Your task to perform on an android device: turn on the 24-hour format for clock Image 0: 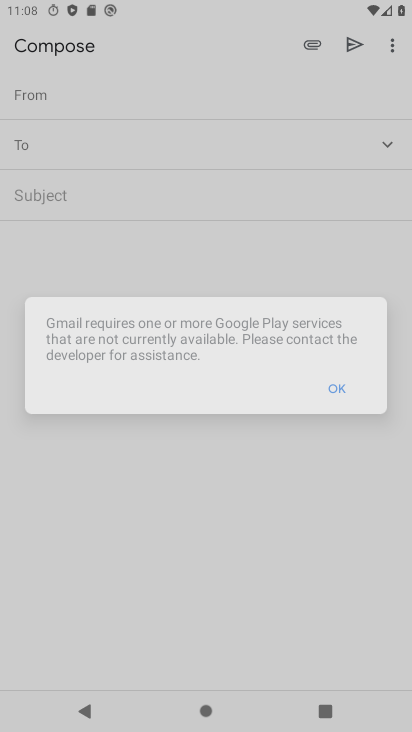
Step 0: drag from (330, 562) to (312, 206)
Your task to perform on an android device: turn on the 24-hour format for clock Image 1: 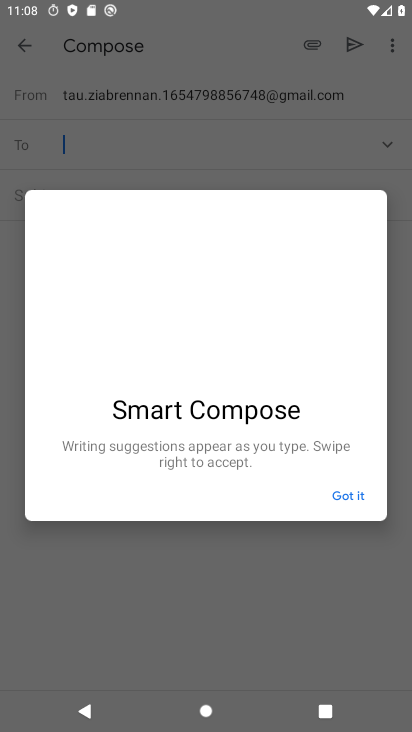
Step 1: press home button
Your task to perform on an android device: turn on the 24-hour format for clock Image 2: 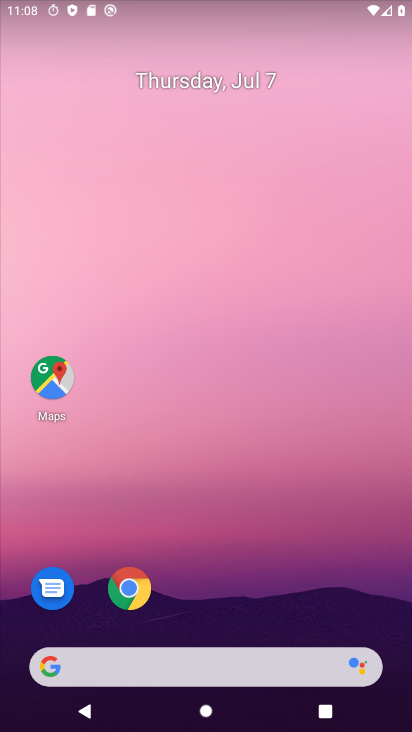
Step 2: drag from (310, 487) to (306, 112)
Your task to perform on an android device: turn on the 24-hour format for clock Image 3: 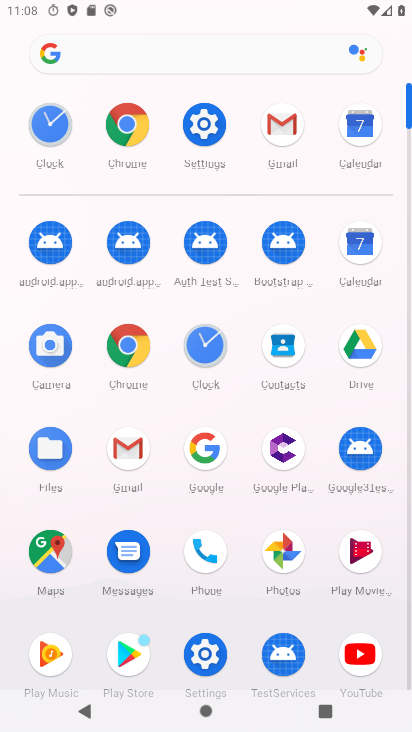
Step 3: click (202, 348)
Your task to perform on an android device: turn on the 24-hour format for clock Image 4: 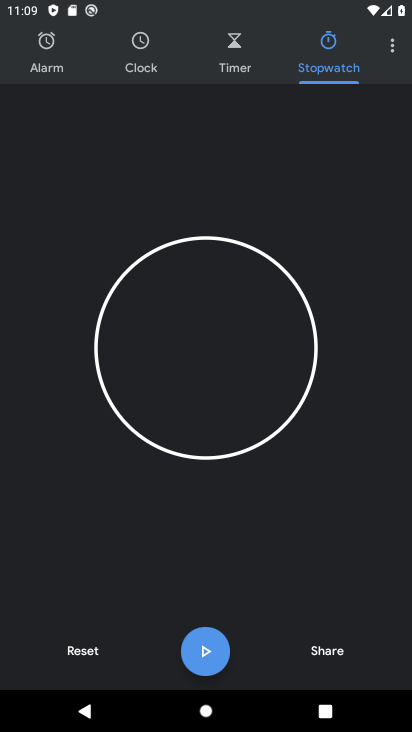
Step 4: click (398, 44)
Your task to perform on an android device: turn on the 24-hour format for clock Image 5: 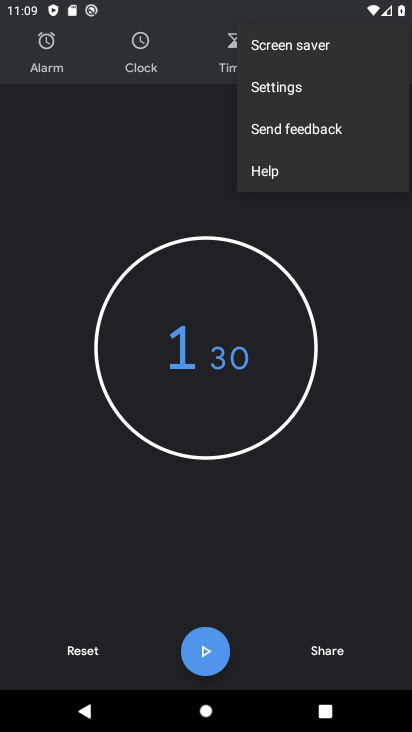
Step 5: click (285, 90)
Your task to perform on an android device: turn on the 24-hour format for clock Image 6: 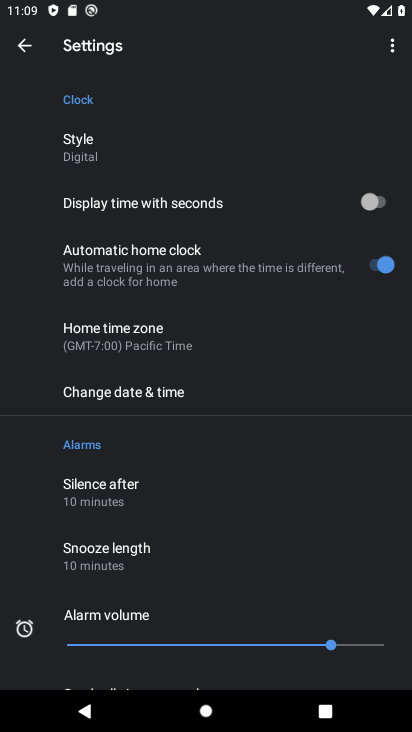
Step 6: click (173, 404)
Your task to perform on an android device: turn on the 24-hour format for clock Image 7: 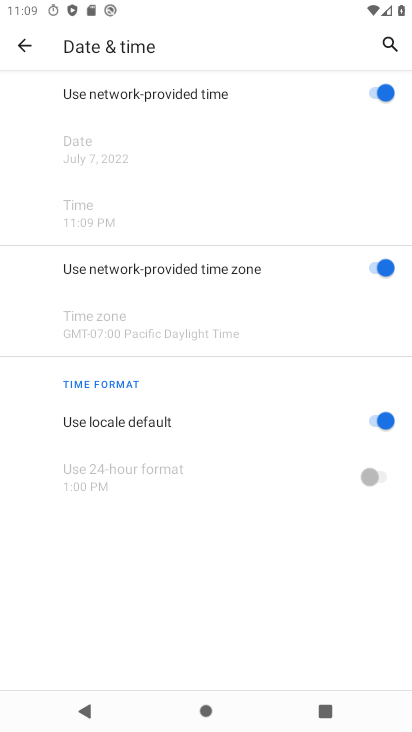
Step 7: click (376, 422)
Your task to perform on an android device: turn on the 24-hour format for clock Image 8: 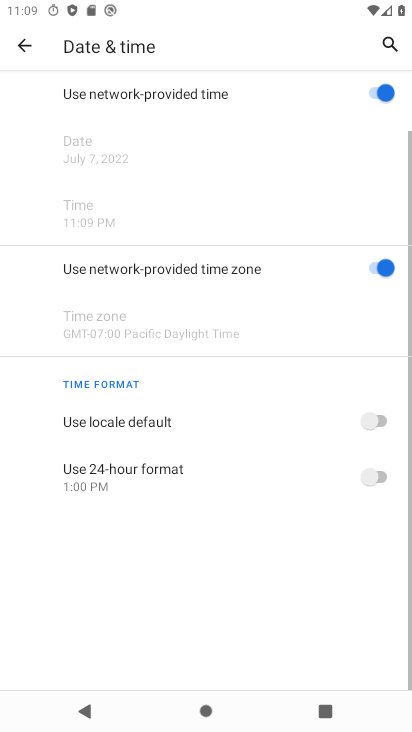
Step 8: click (377, 476)
Your task to perform on an android device: turn on the 24-hour format for clock Image 9: 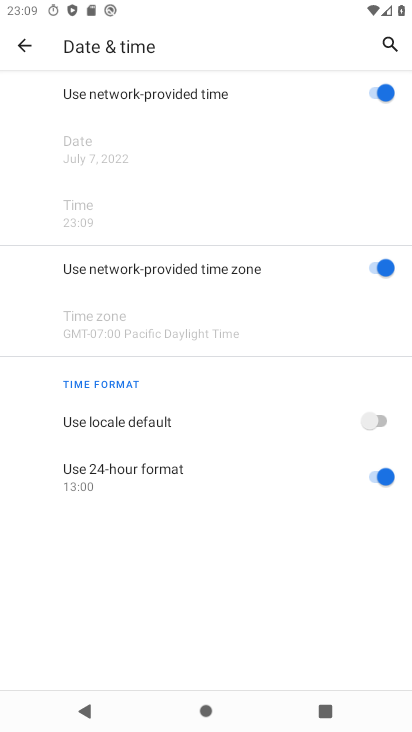
Step 9: task complete